Your task to perform on an android device: Do I have any events today? Image 0: 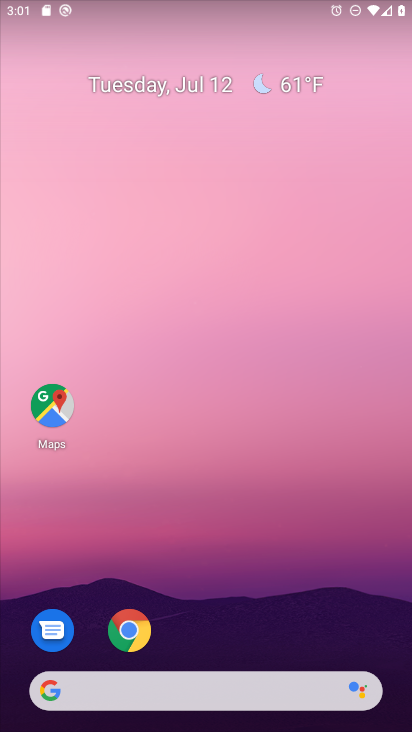
Step 0: drag from (220, 621) to (223, 167)
Your task to perform on an android device: Do I have any events today? Image 1: 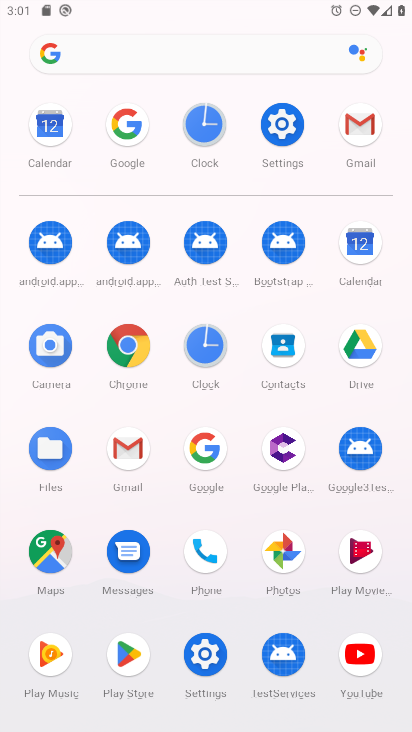
Step 1: click (366, 271)
Your task to perform on an android device: Do I have any events today? Image 2: 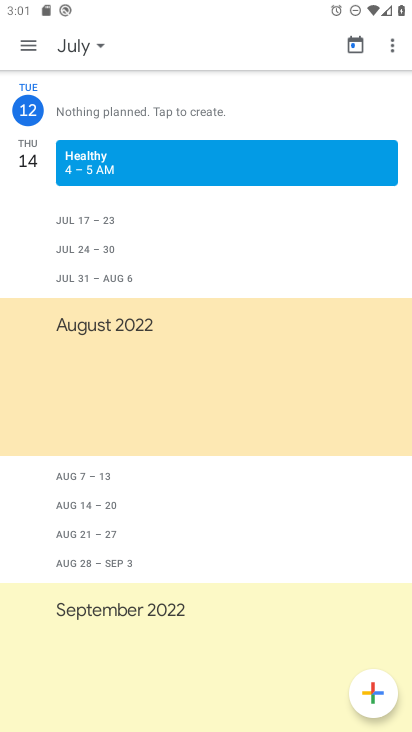
Step 2: click (104, 51)
Your task to perform on an android device: Do I have any events today? Image 3: 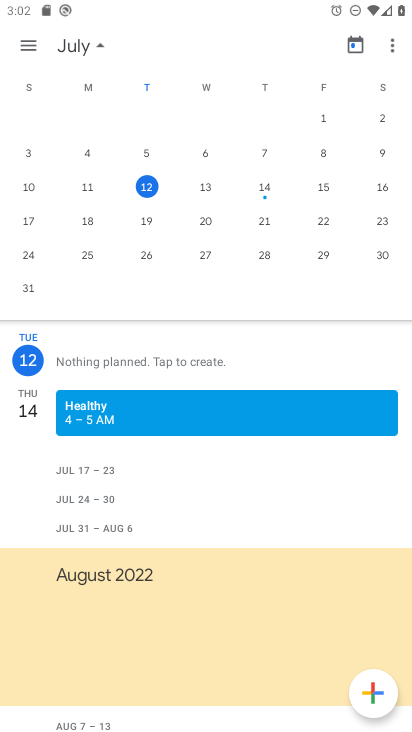
Step 3: task complete